Your task to perform on an android device: turn on priority inbox in the gmail app Image 0: 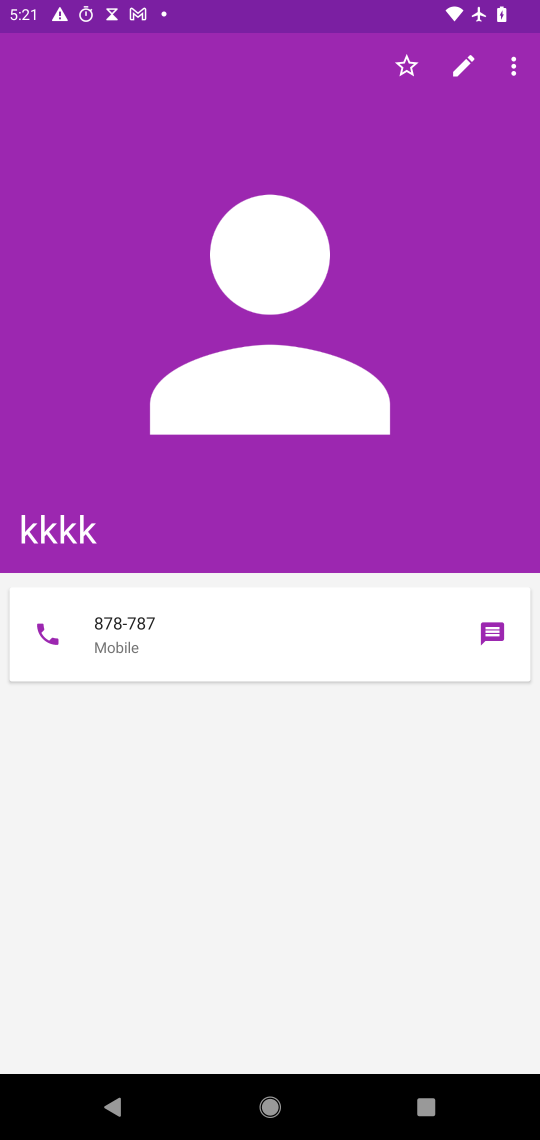
Step 0: press home button
Your task to perform on an android device: turn on priority inbox in the gmail app Image 1: 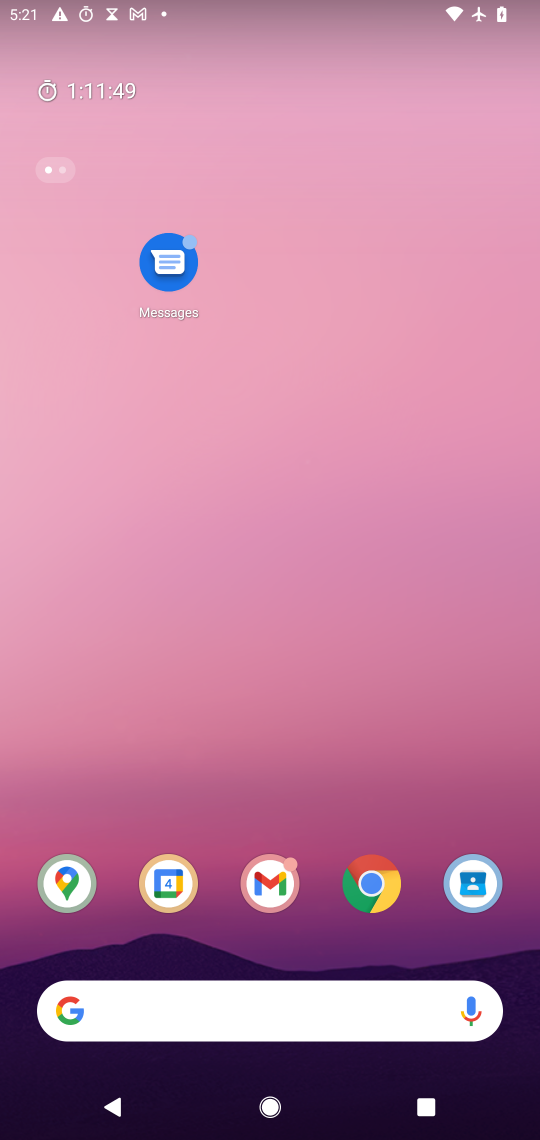
Step 1: drag from (309, 897) to (318, 9)
Your task to perform on an android device: turn on priority inbox in the gmail app Image 2: 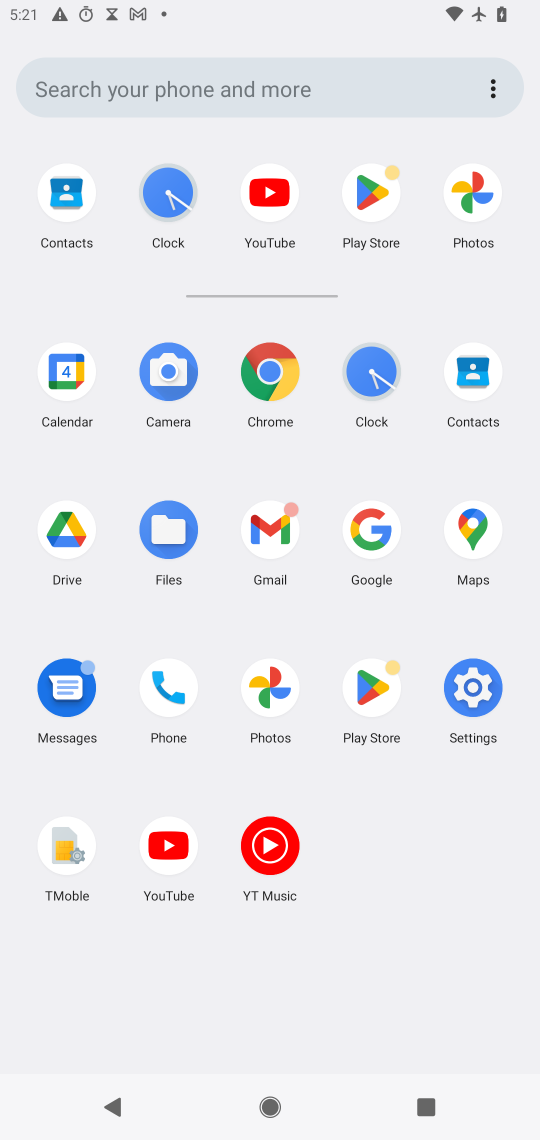
Step 2: click (273, 536)
Your task to perform on an android device: turn on priority inbox in the gmail app Image 3: 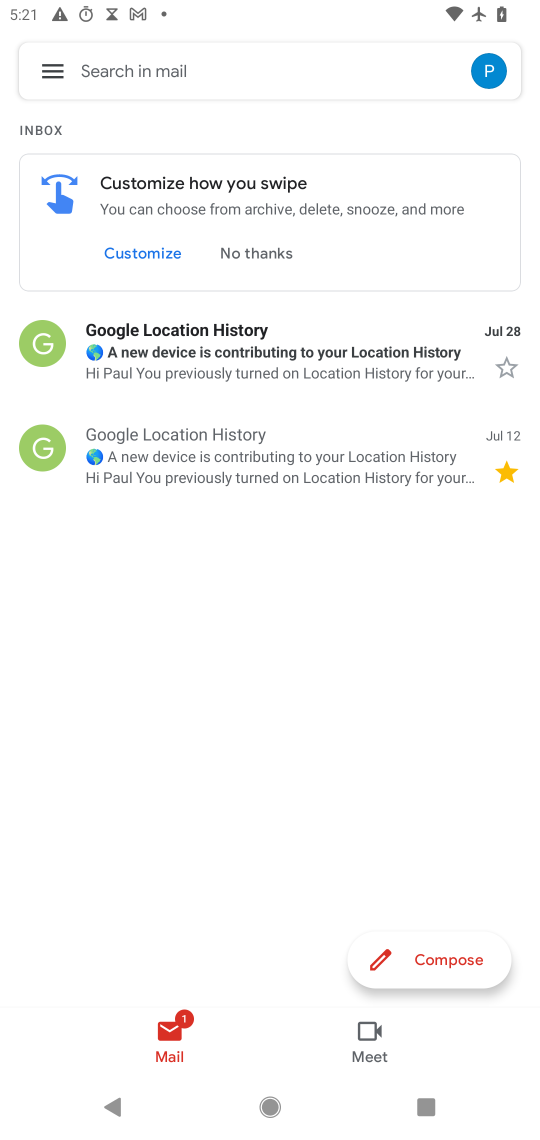
Step 3: click (49, 76)
Your task to perform on an android device: turn on priority inbox in the gmail app Image 4: 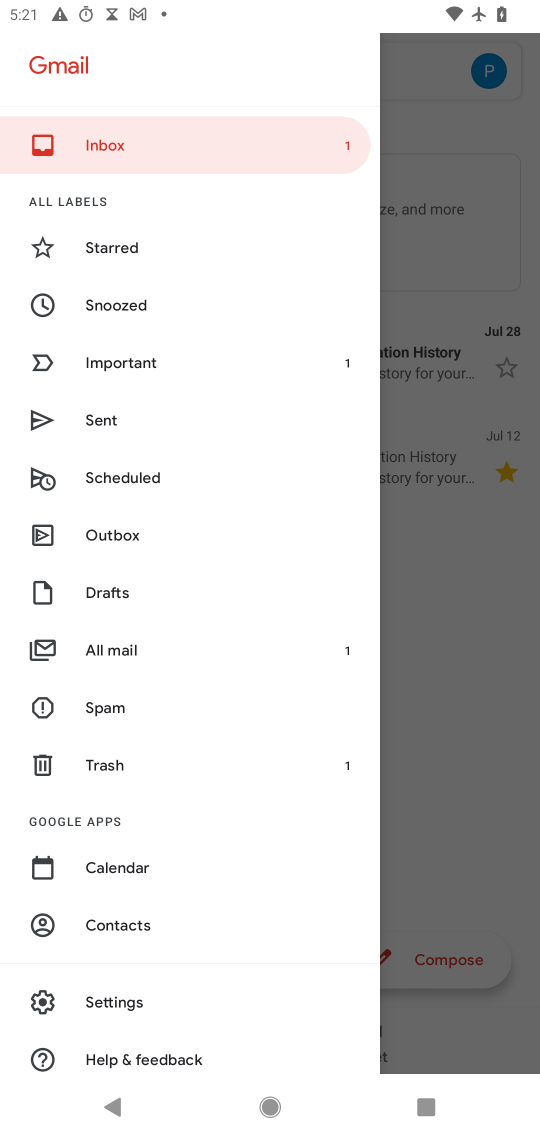
Step 4: click (108, 998)
Your task to perform on an android device: turn on priority inbox in the gmail app Image 5: 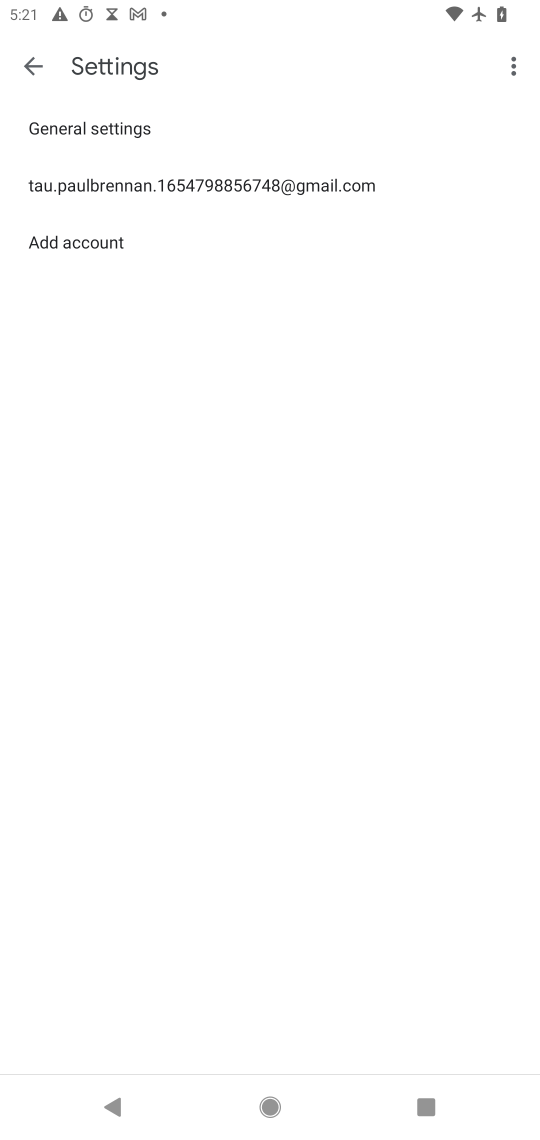
Step 5: click (140, 181)
Your task to perform on an android device: turn on priority inbox in the gmail app Image 6: 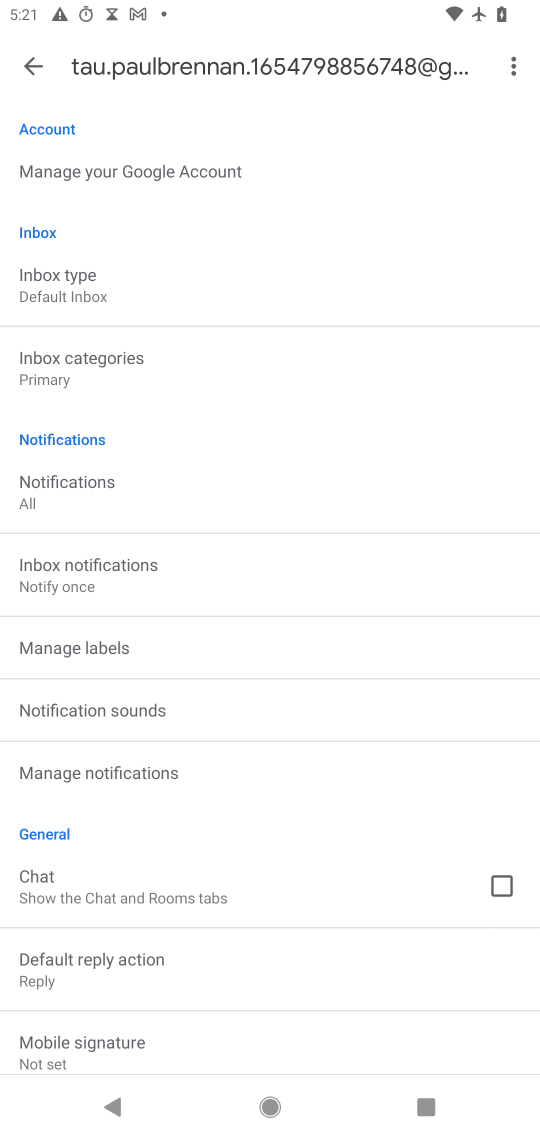
Step 6: click (78, 290)
Your task to perform on an android device: turn on priority inbox in the gmail app Image 7: 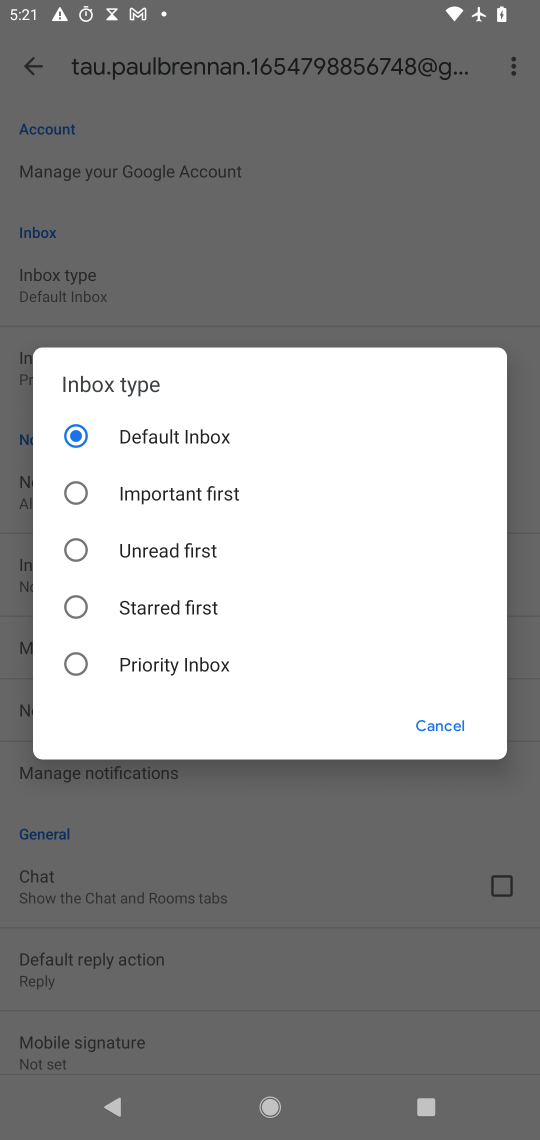
Step 7: click (78, 662)
Your task to perform on an android device: turn on priority inbox in the gmail app Image 8: 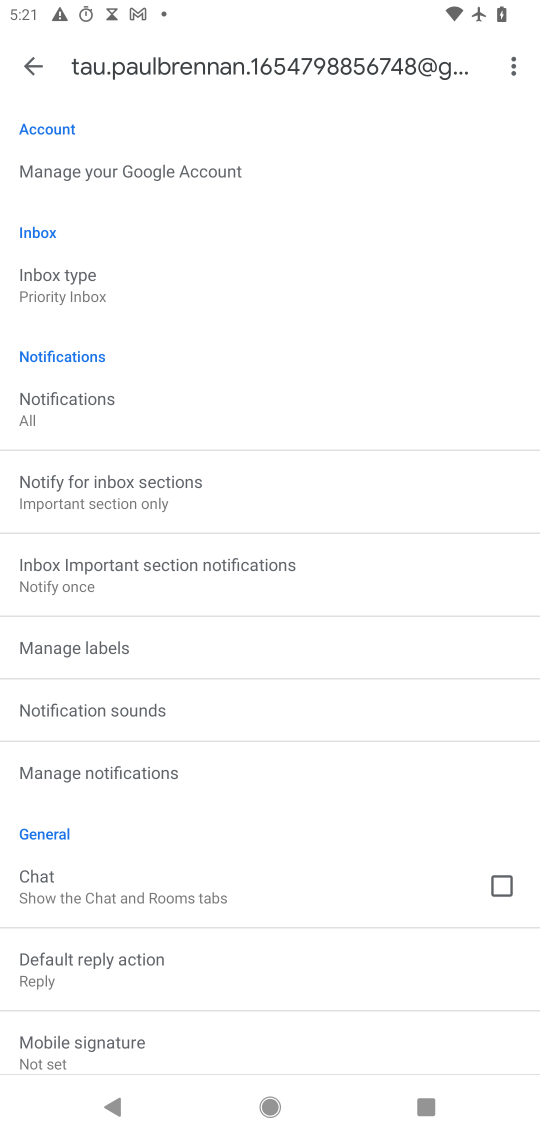
Step 8: task complete